Your task to perform on an android device: open a bookmark in the chrome app Image 0: 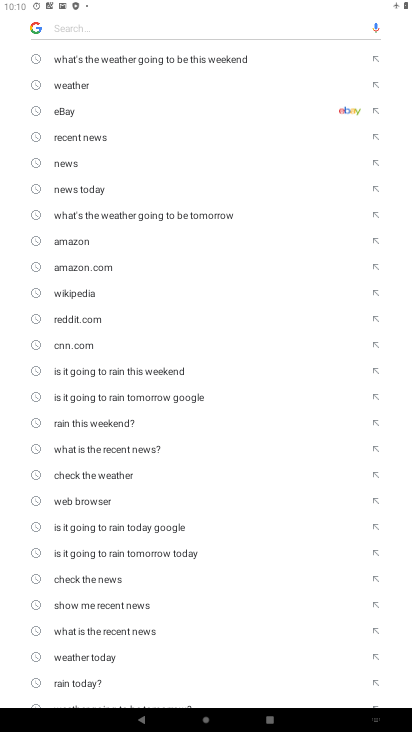
Step 0: press home button
Your task to perform on an android device: open a bookmark in the chrome app Image 1: 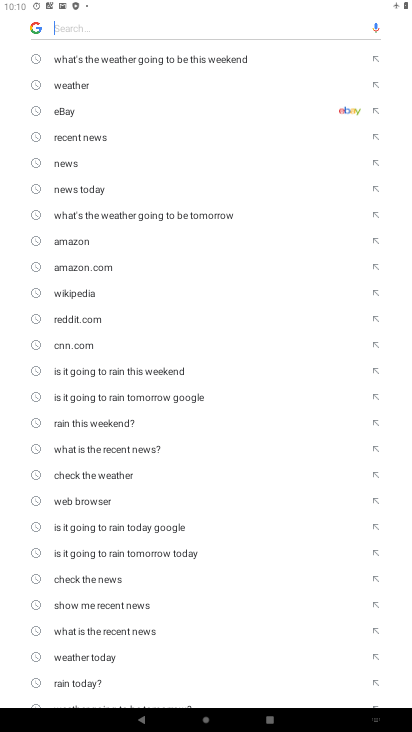
Step 1: press home button
Your task to perform on an android device: open a bookmark in the chrome app Image 2: 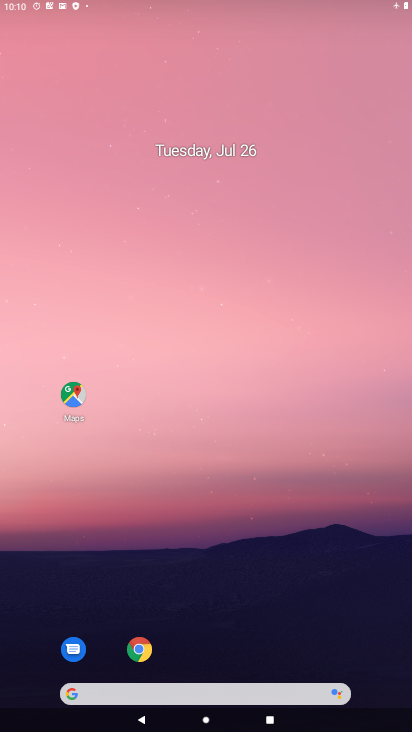
Step 2: drag from (220, 633) to (271, 254)
Your task to perform on an android device: open a bookmark in the chrome app Image 3: 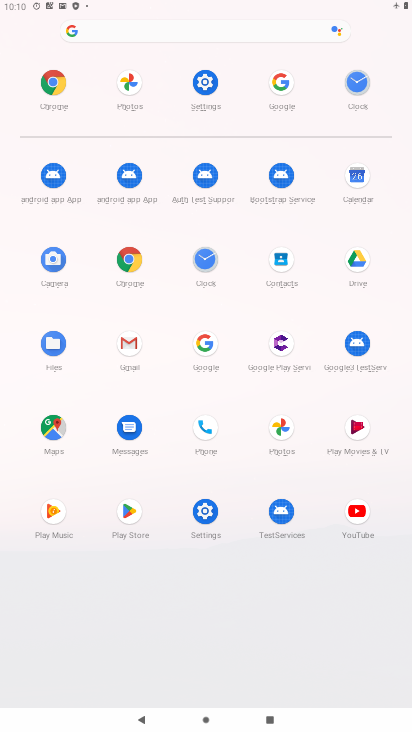
Step 3: click (130, 248)
Your task to perform on an android device: open a bookmark in the chrome app Image 4: 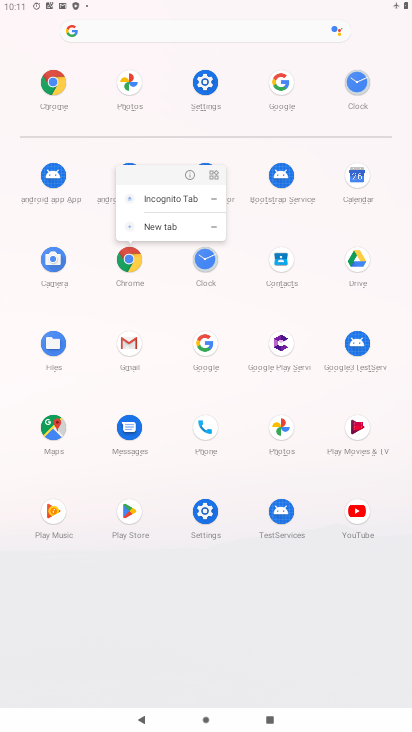
Step 4: click (191, 177)
Your task to perform on an android device: open a bookmark in the chrome app Image 5: 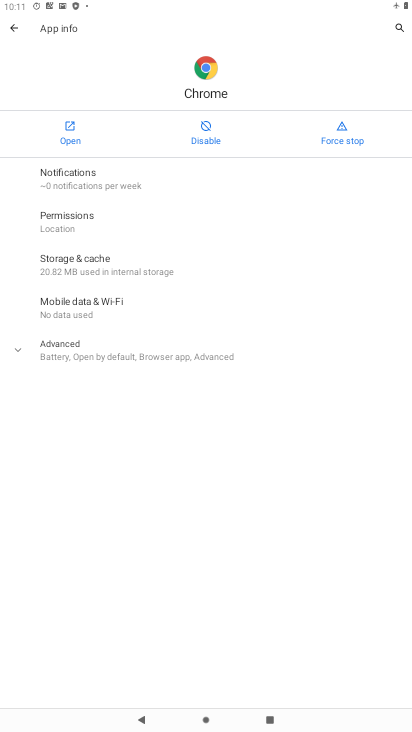
Step 5: click (70, 135)
Your task to perform on an android device: open a bookmark in the chrome app Image 6: 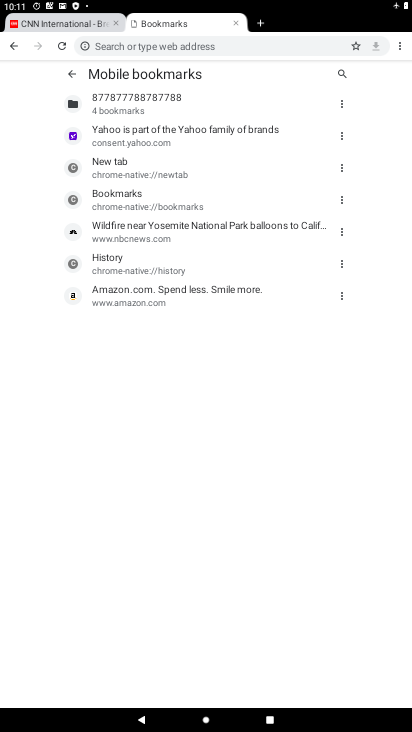
Step 6: task complete